Your task to perform on an android device: Open sound settings Image 0: 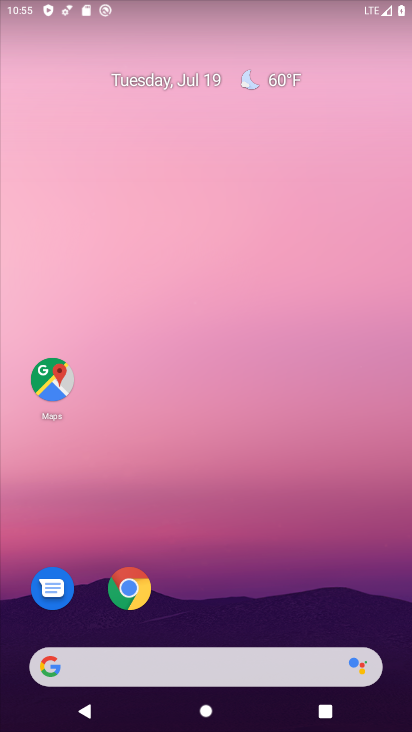
Step 0: click (410, 100)
Your task to perform on an android device: Open sound settings Image 1: 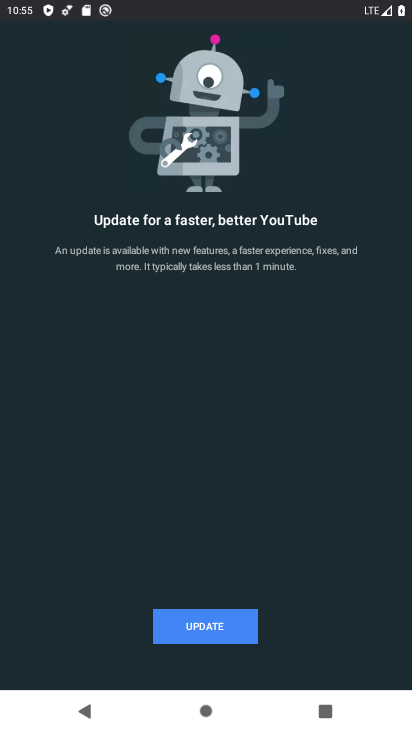
Step 1: press home button
Your task to perform on an android device: Open sound settings Image 2: 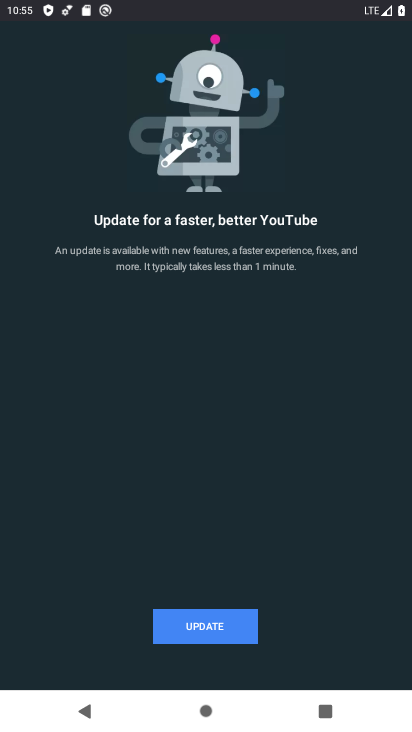
Step 2: drag from (410, 100) to (383, 535)
Your task to perform on an android device: Open sound settings Image 3: 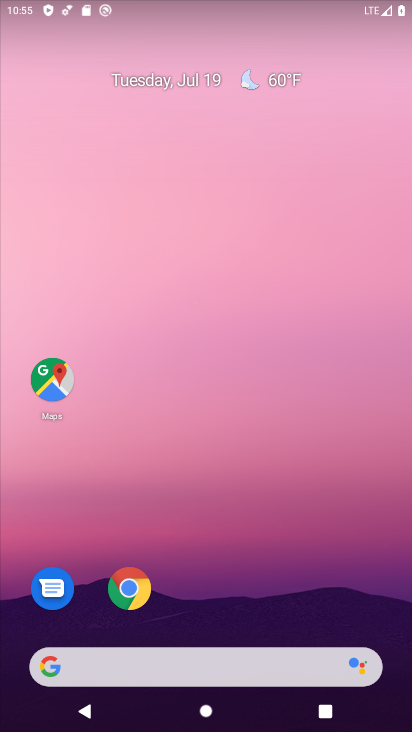
Step 3: drag from (225, 555) to (154, 86)
Your task to perform on an android device: Open sound settings Image 4: 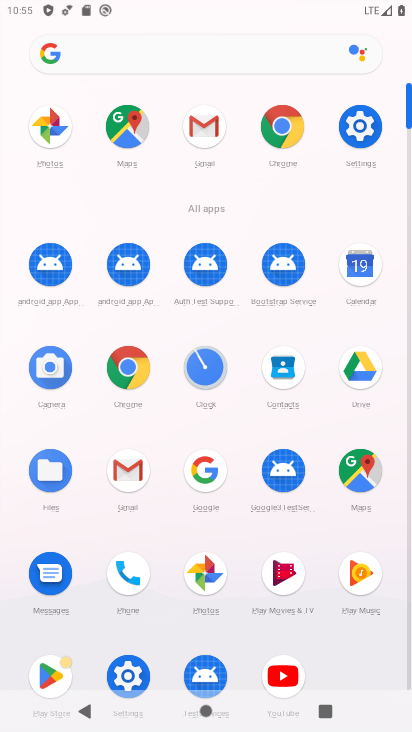
Step 4: click (349, 121)
Your task to perform on an android device: Open sound settings Image 5: 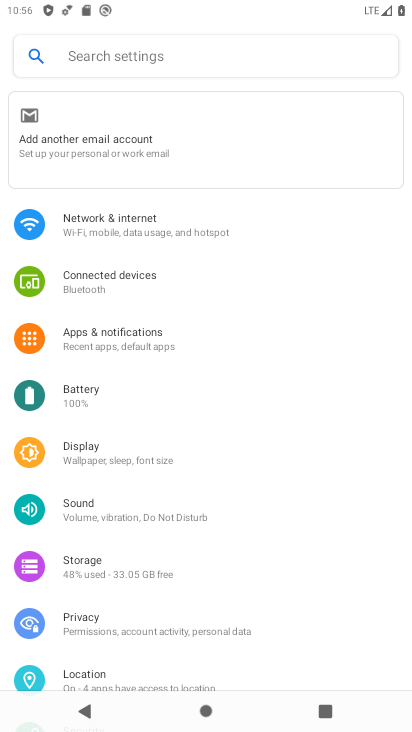
Step 5: click (113, 518)
Your task to perform on an android device: Open sound settings Image 6: 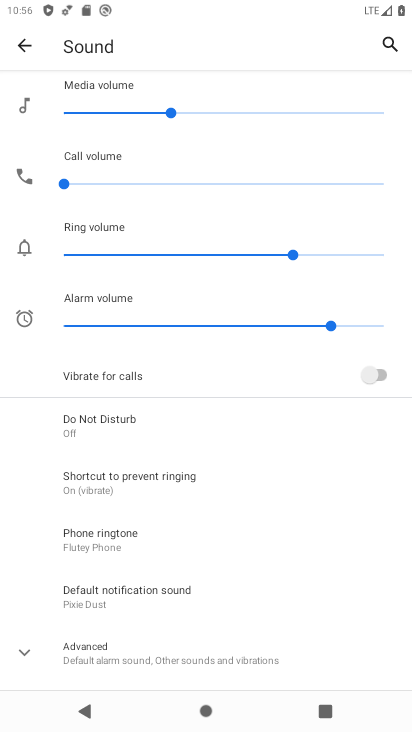
Step 6: task complete